Your task to perform on an android device: open a bookmark in the chrome app Image 0: 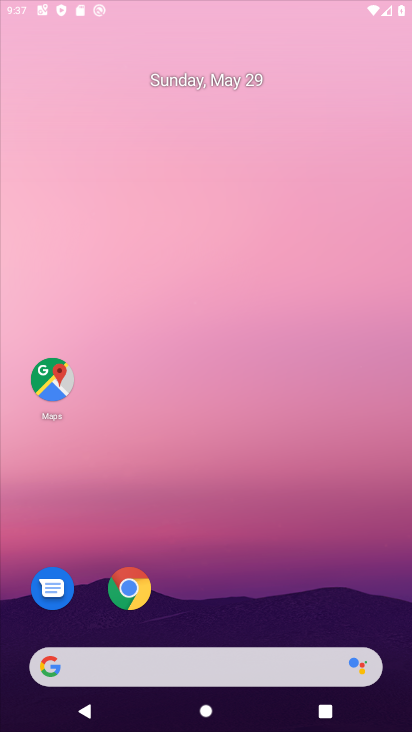
Step 0: press home button
Your task to perform on an android device: open a bookmark in the chrome app Image 1: 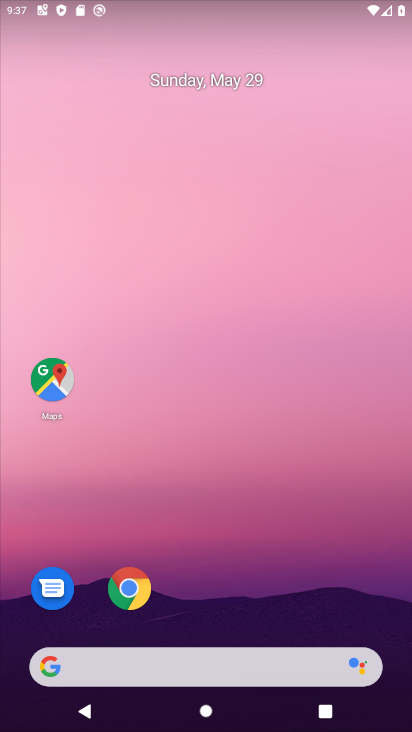
Step 1: click (139, 581)
Your task to perform on an android device: open a bookmark in the chrome app Image 2: 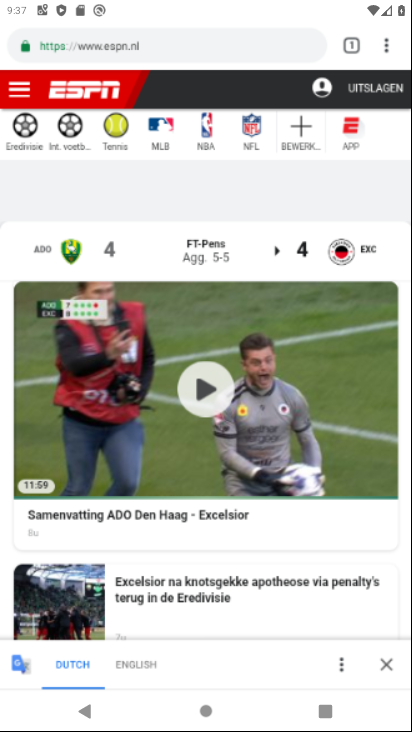
Step 2: click (387, 39)
Your task to perform on an android device: open a bookmark in the chrome app Image 3: 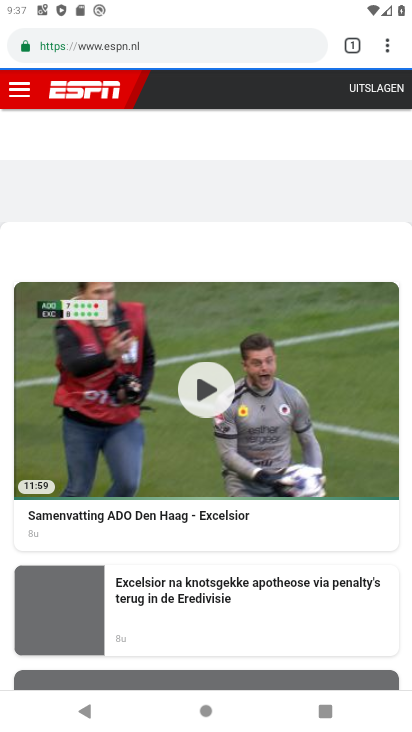
Step 3: click (389, 41)
Your task to perform on an android device: open a bookmark in the chrome app Image 4: 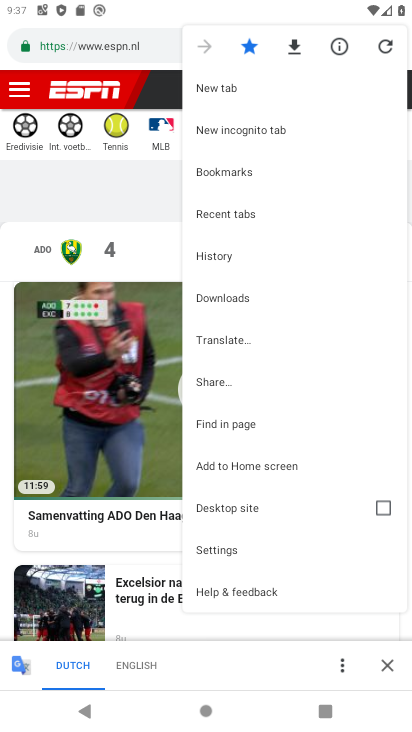
Step 4: click (274, 170)
Your task to perform on an android device: open a bookmark in the chrome app Image 5: 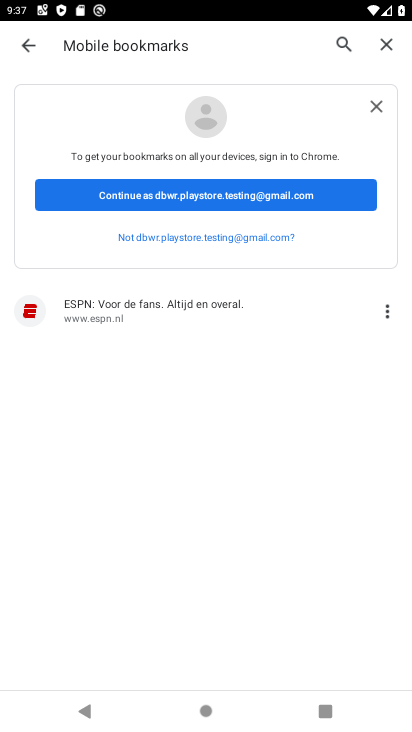
Step 5: task complete